Your task to perform on an android device: set an alarm Image 0: 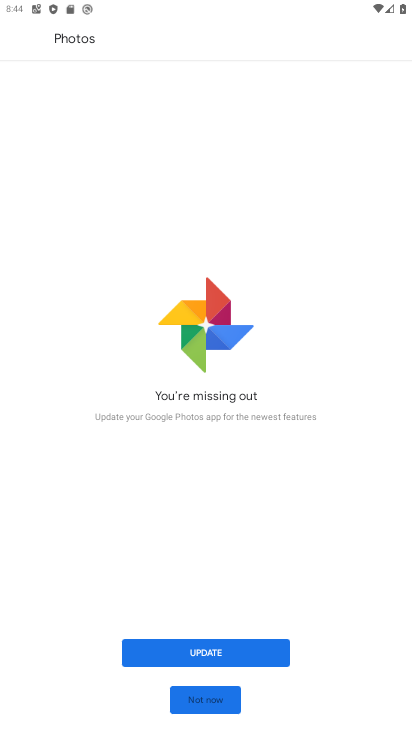
Step 0: click (196, 650)
Your task to perform on an android device: set an alarm Image 1: 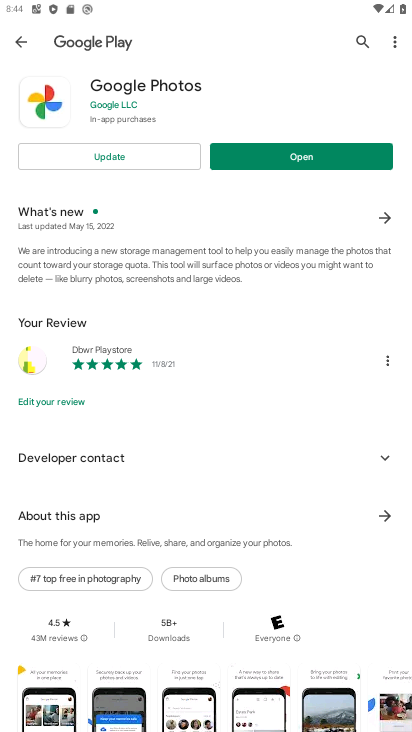
Step 1: press home button
Your task to perform on an android device: set an alarm Image 2: 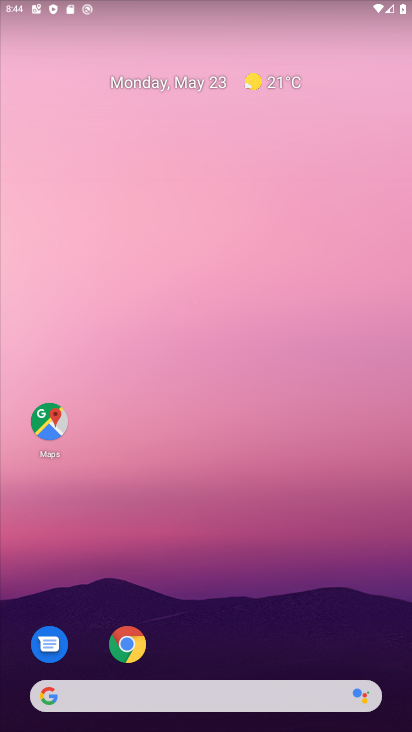
Step 2: drag from (182, 708) to (300, 35)
Your task to perform on an android device: set an alarm Image 3: 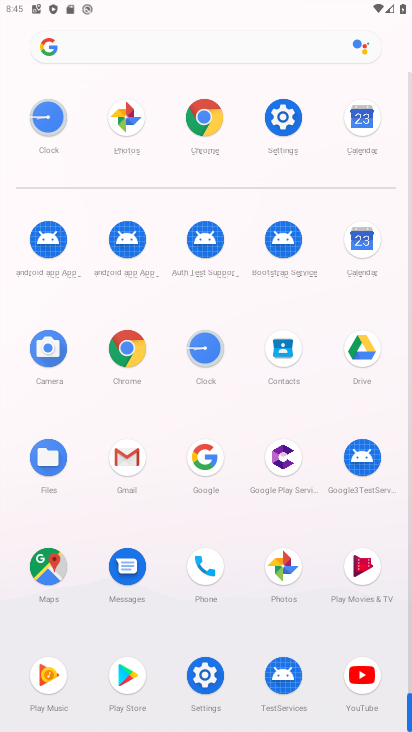
Step 3: click (41, 113)
Your task to perform on an android device: set an alarm Image 4: 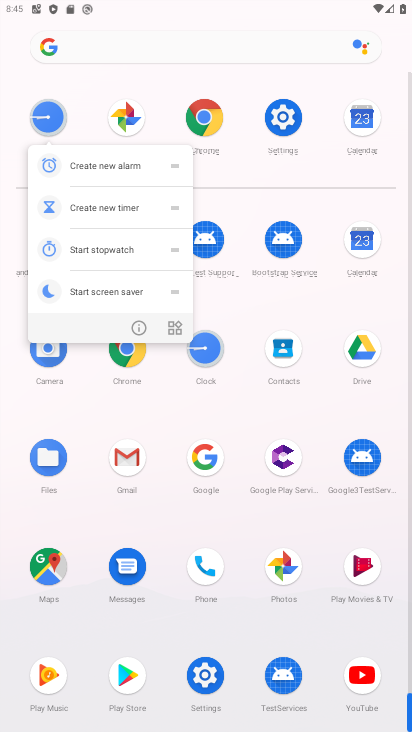
Step 4: click (41, 113)
Your task to perform on an android device: set an alarm Image 5: 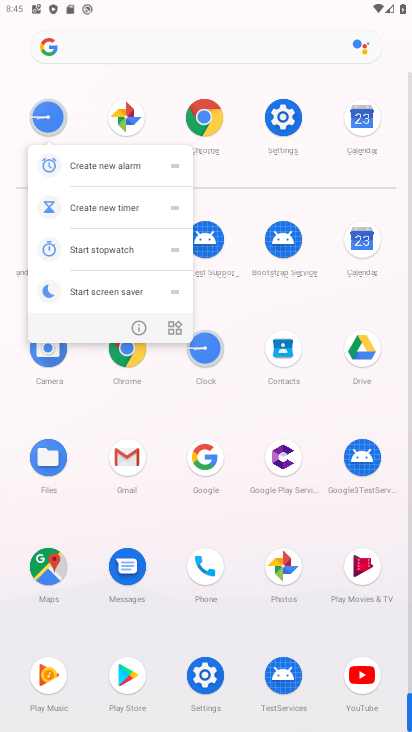
Step 5: click (41, 113)
Your task to perform on an android device: set an alarm Image 6: 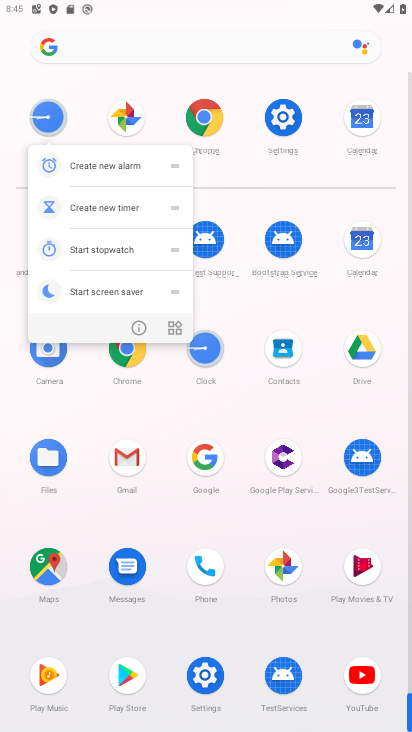
Step 6: click (41, 113)
Your task to perform on an android device: set an alarm Image 7: 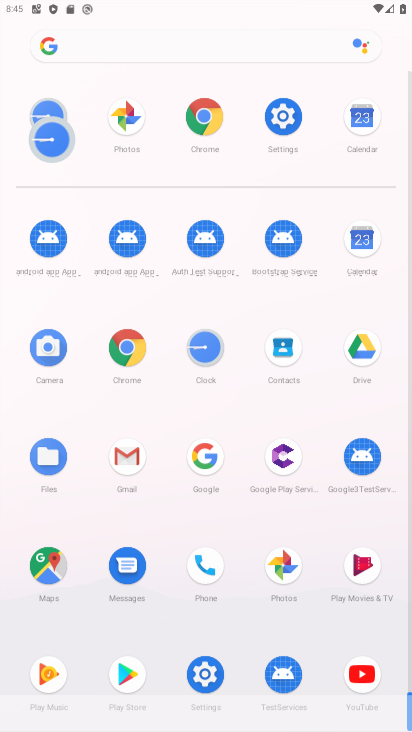
Step 7: click (41, 113)
Your task to perform on an android device: set an alarm Image 8: 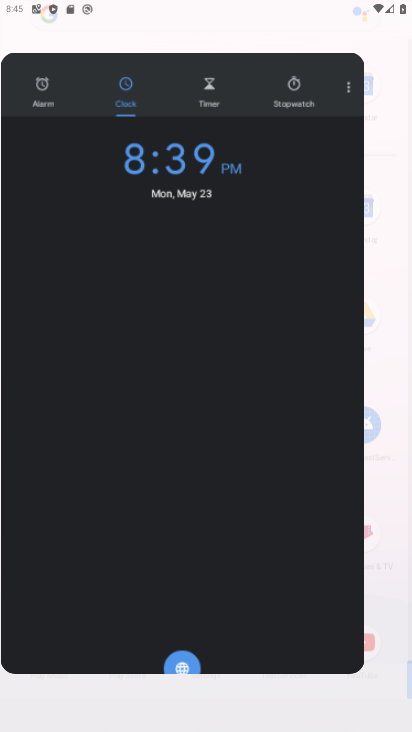
Step 8: click (41, 113)
Your task to perform on an android device: set an alarm Image 9: 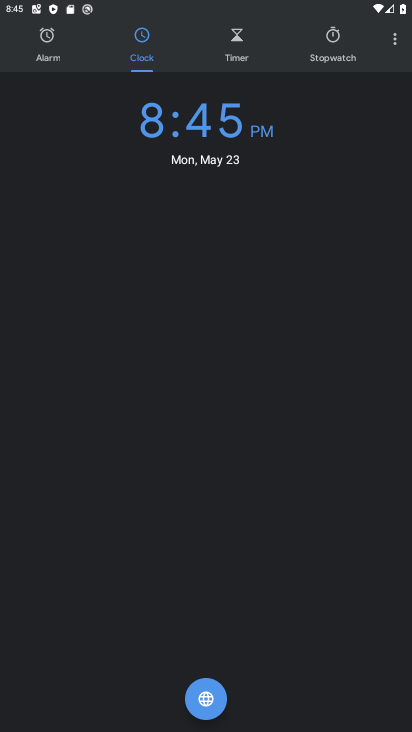
Step 9: click (49, 35)
Your task to perform on an android device: set an alarm Image 10: 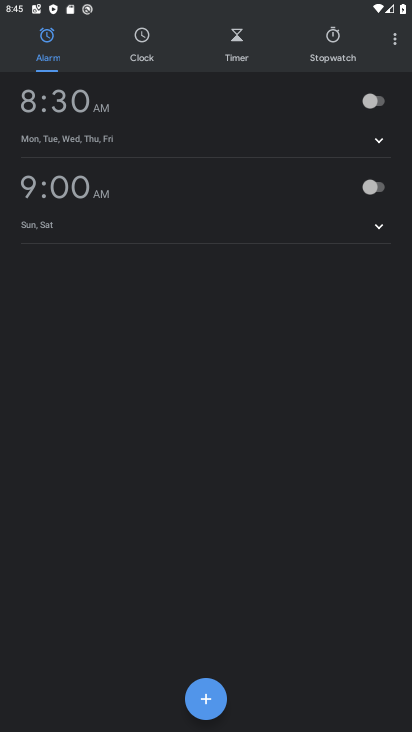
Step 10: click (211, 712)
Your task to perform on an android device: set an alarm Image 11: 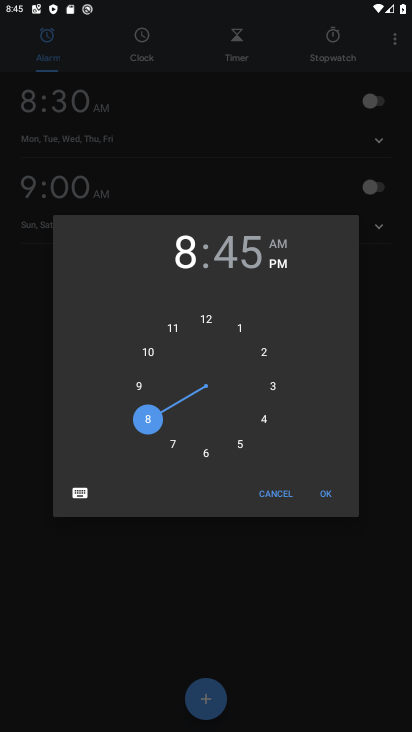
Step 11: click (323, 488)
Your task to perform on an android device: set an alarm Image 12: 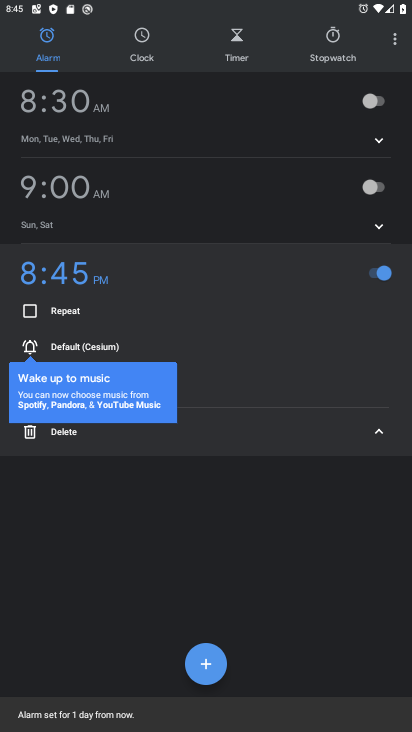
Step 12: task complete